Your task to perform on an android device: Check the news Image 0: 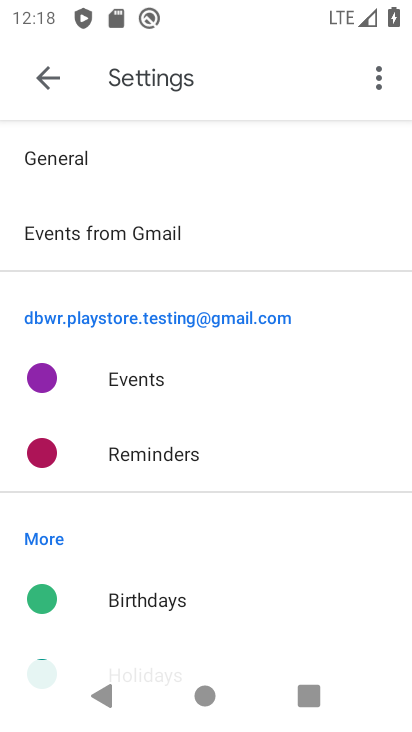
Step 0: press home button
Your task to perform on an android device: Check the news Image 1: 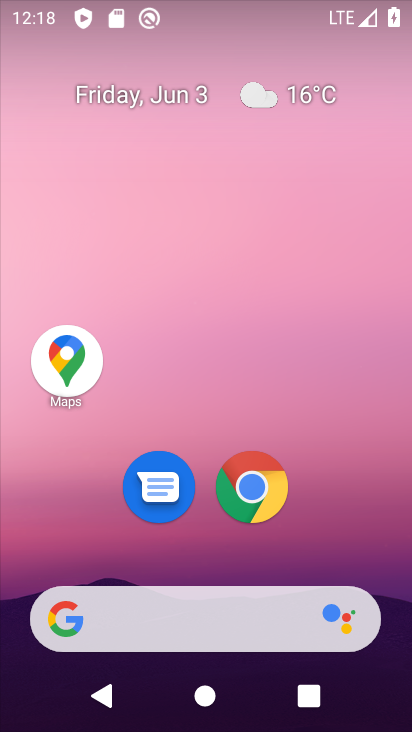
Step 1: click (277, 625)
Your task to perform on an android device: Check the news Image 2: 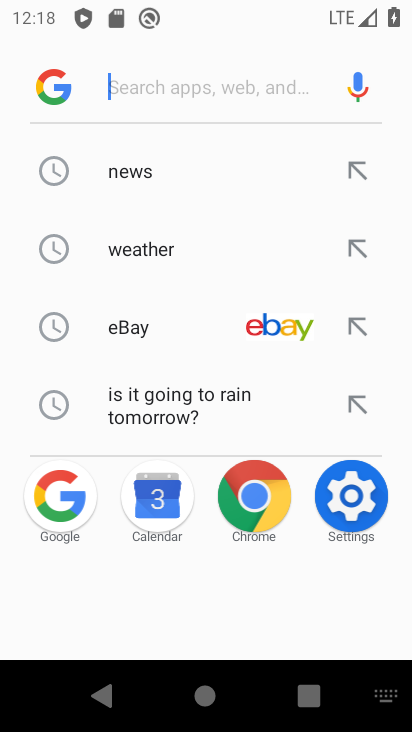
Step 2: type " news"
Your task to perform on an android device: Check the news Image 3: 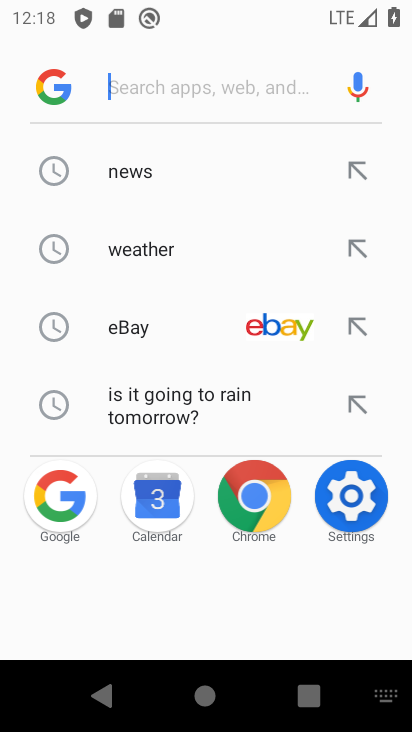
Step 3: click (122, 97)
Your task to perform on an android device: Check the news Image 4: 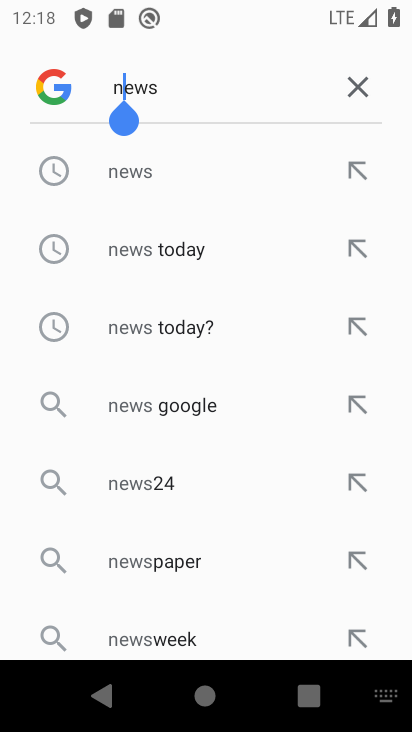
Step 4: click (132, 172)
Your task to perform on an android device: Check the news Image 5: 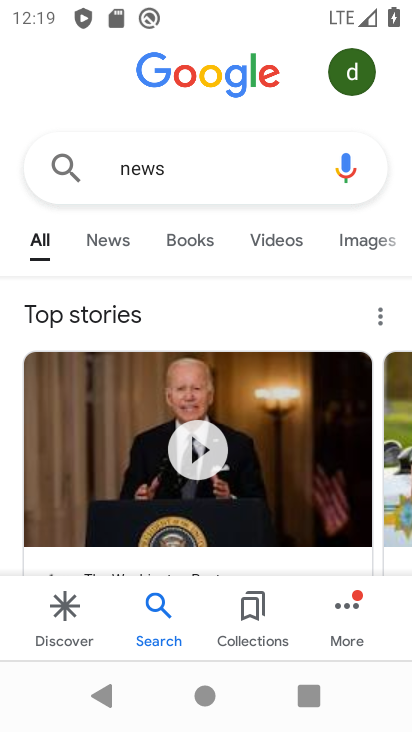
Step 5: task complete